Your task to perform on an android device: all mails in gmail Image 0: 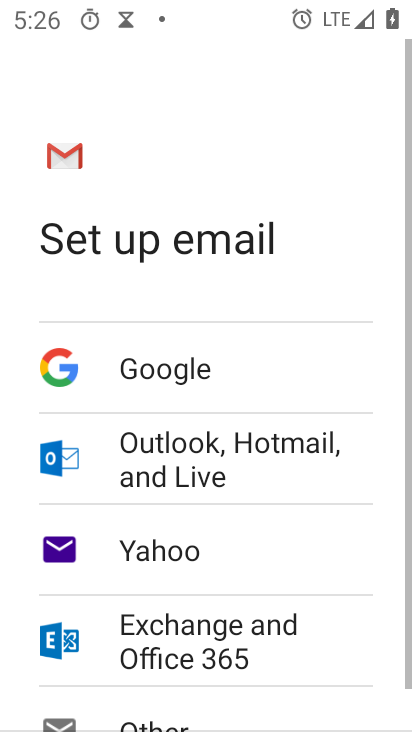
Step 0: press home button
Your task to perform on an android device: all mails in gmail Image 1: 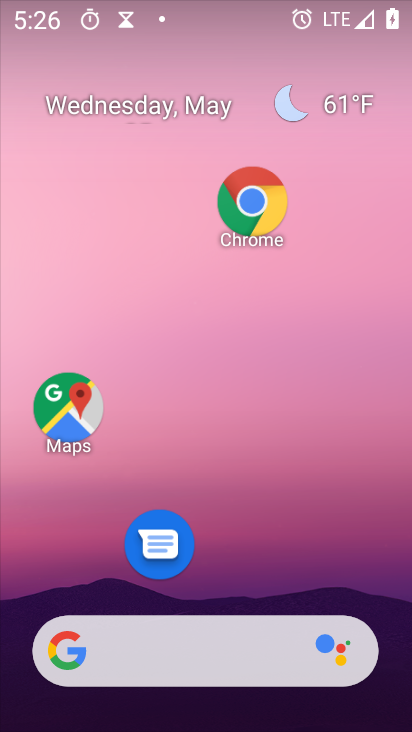
Step 1: drag from (207, 616) to (211, 218)
Your task to perform on an android device: all mails in gmail Image 2: 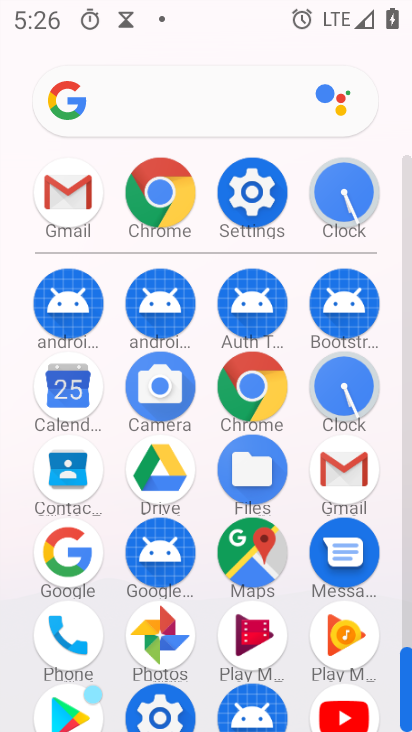
Step 2: click (37, 203)
Your task to perform on an android device: all mails in gmail Image 3: 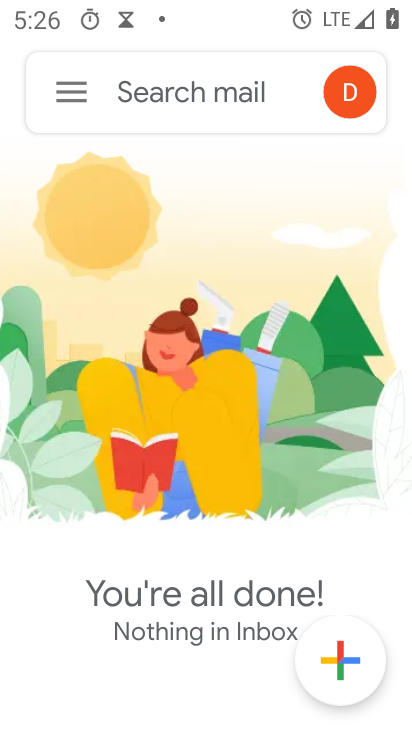
Step 3: click (83, 92)
Your task to perform on an android device: all mails in gmail Image 4: 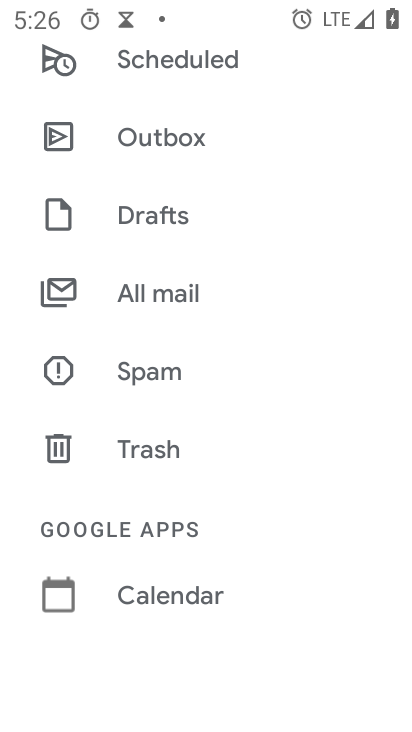
Step 4: click (174, 293)
Your task to perform on an android device: all mails in gmail Image 5: 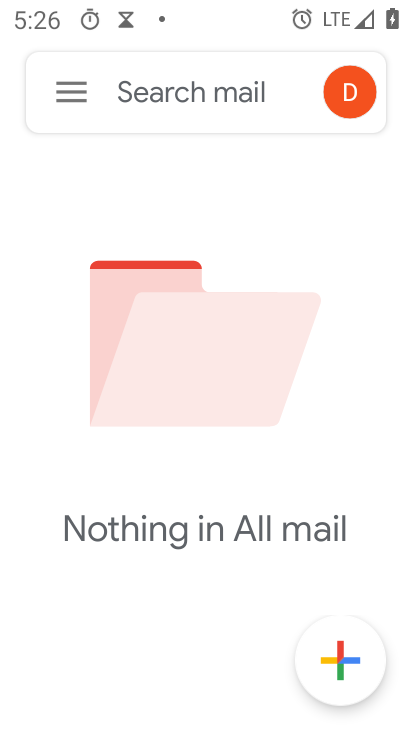
Step 5: task complete